Your task to perform on an android device: change the upload size in google photos Image 0: 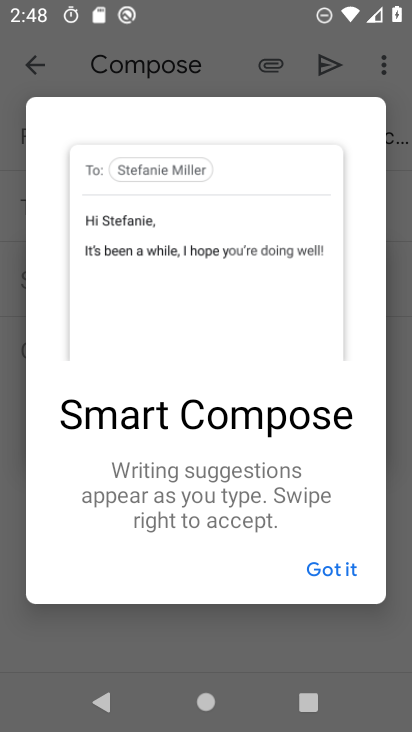
Step 0: press home button
Your task to perform on an android device: change the upload size in google photos Image 1: 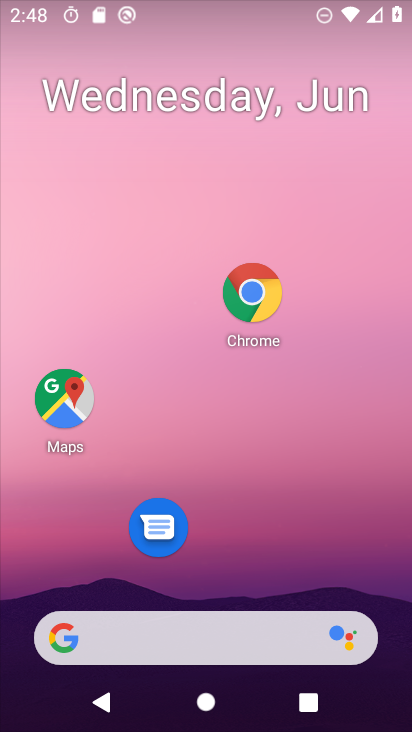
Step 1: drag from (236, 515) to (236, 391)
Your task to perform on an android device: change the upload size in google photos Image 2: 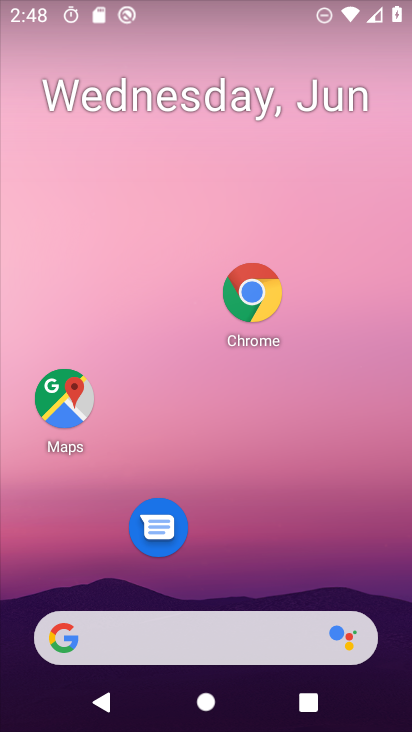
Step 2: drag from (257, 594) to (255, 167)
Your task to perform on an android device: change the upload size in google photos Image 3: 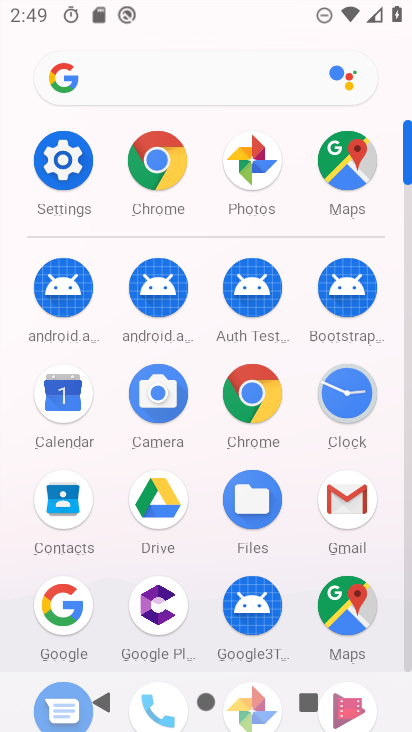
Step 3: drag from (288, 519) to (327, 237)
Your task to perform on an android device: change the upload size in google photos Image 4: 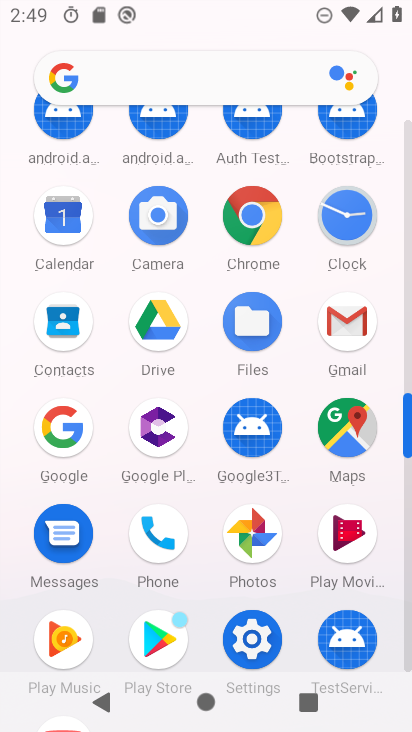
Step 4: click (246, 553)
Your task to perform on an android device: change the upload size in google photos Image 5: 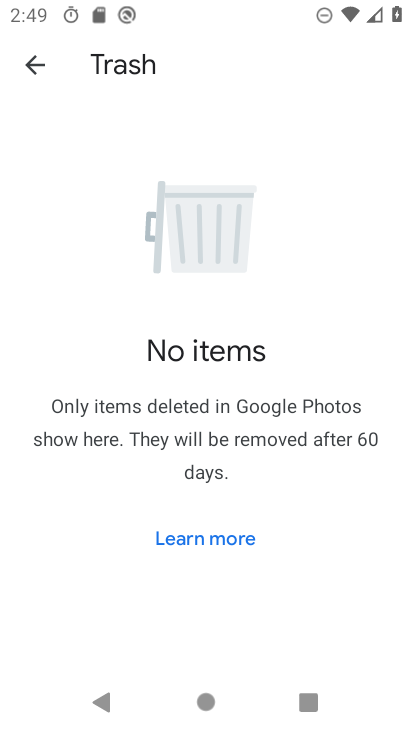
Step 5: click (22, 65)
Your task to perform on an android device: change the upload size in google photos Image 6: 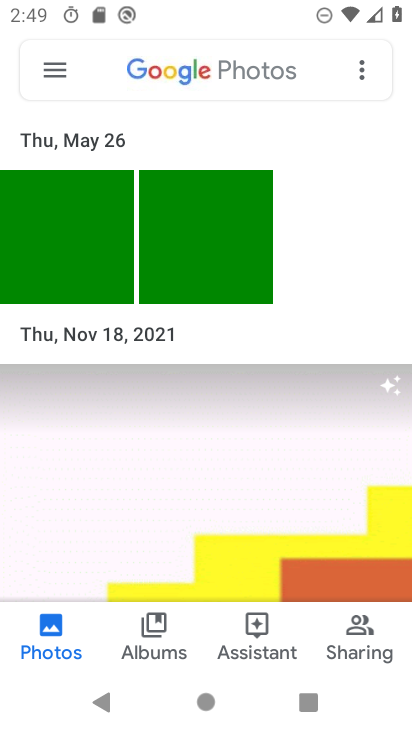
Step 6: click (47, 78)
Your task to perform on an android device: change the upload size in google photos Image 7: 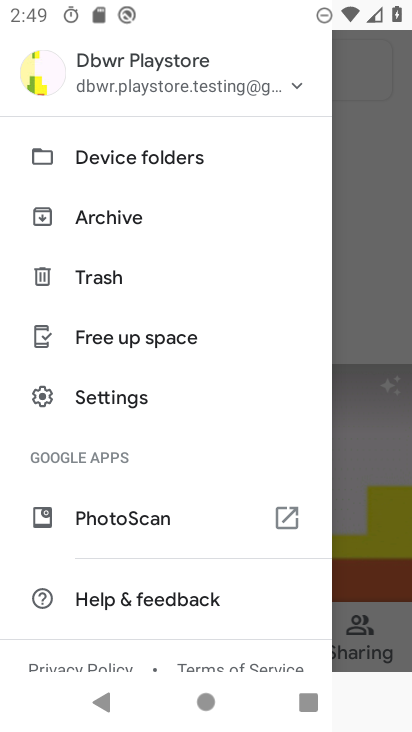
Step 7: click (118, 395)
Your task to perform on an android device: change the upload size in google photos Image 8: 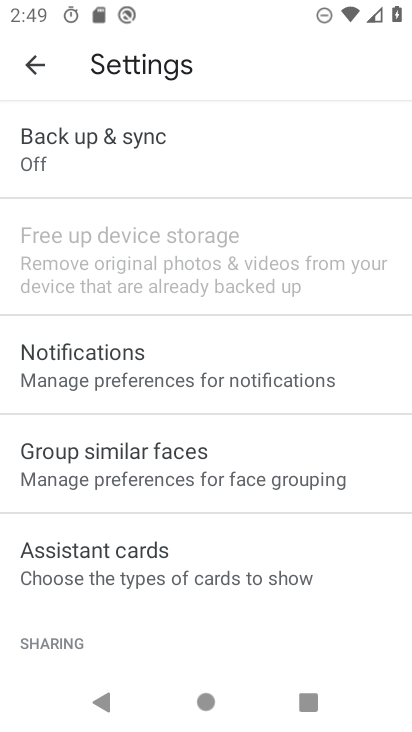
Step 8: click (145, 157)
Your task to perform on an android device: change the upload size in google photos Image 9: 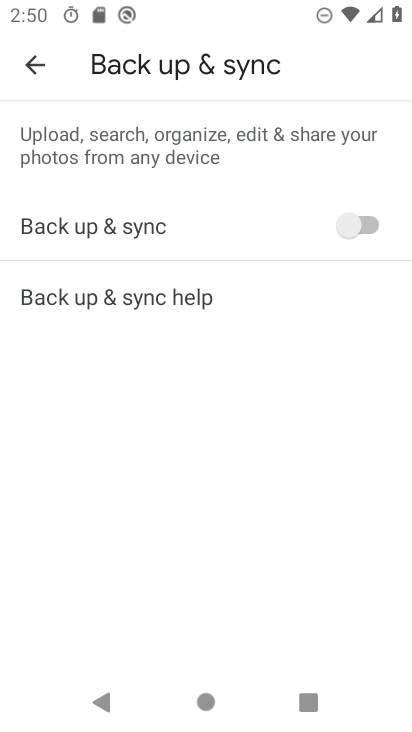
Step 9: task complete